Your task to perform on an android device: Is it going to rain today? Image 0: 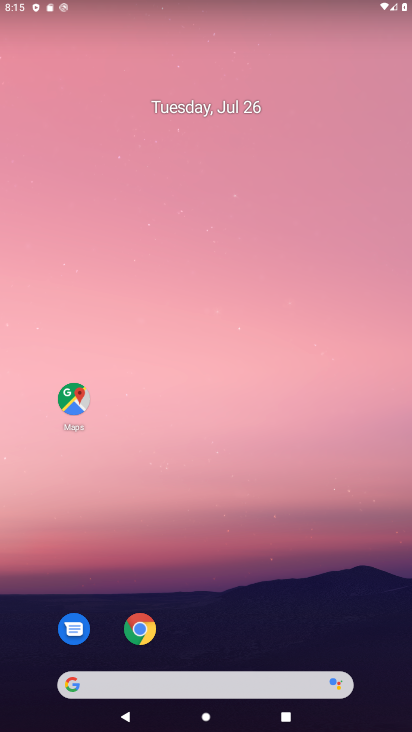
Step 0: click (200, 679)
Your task to perform on an android device: Is it going to rain today? Image 1: 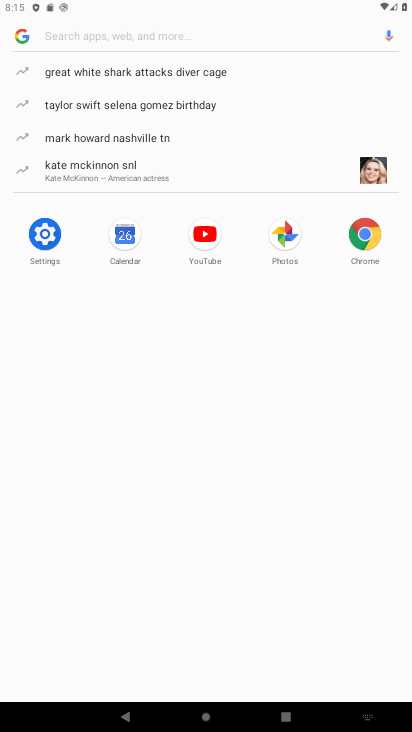
Step 1: type "weather"
Your task to perform on an android device: Is it going to rain today? Image 2: 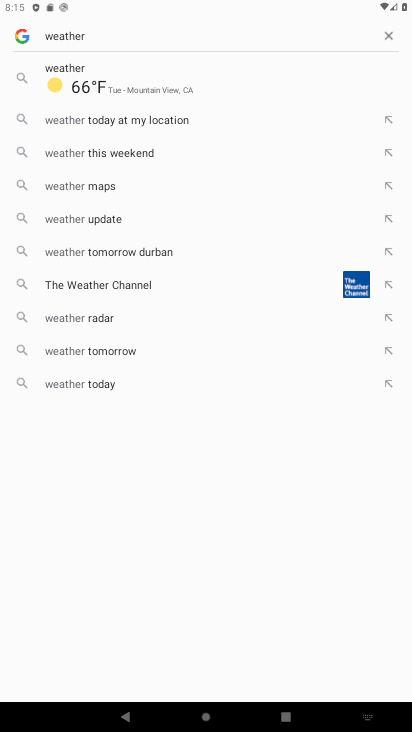
Step 2: click (90, 102)
Your task to perform on an android device: Is it going to rain today? Image 3: 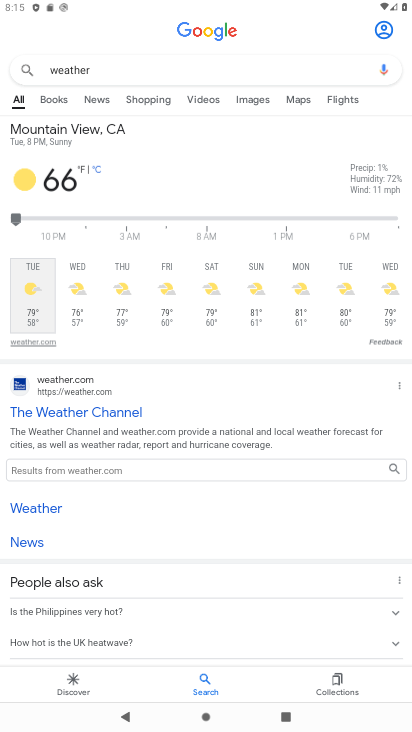
Step 3: click (36, 277)
Your task to perform on an android device: Is it going to rain today? Image 4: 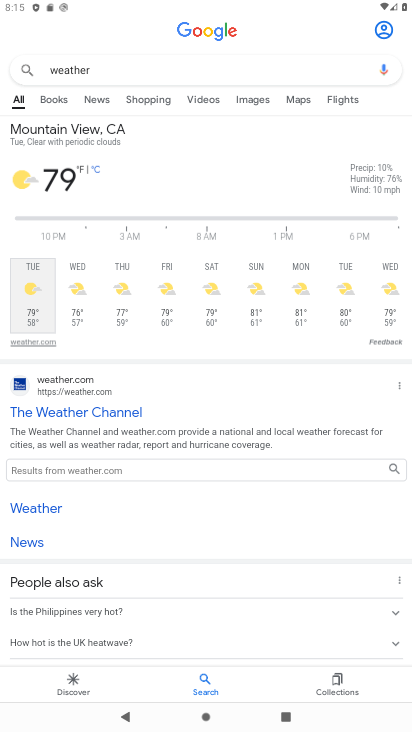
Step 4: click (36, 277)
Your task to perform on an android device: Is it going to rain today? Image 5: 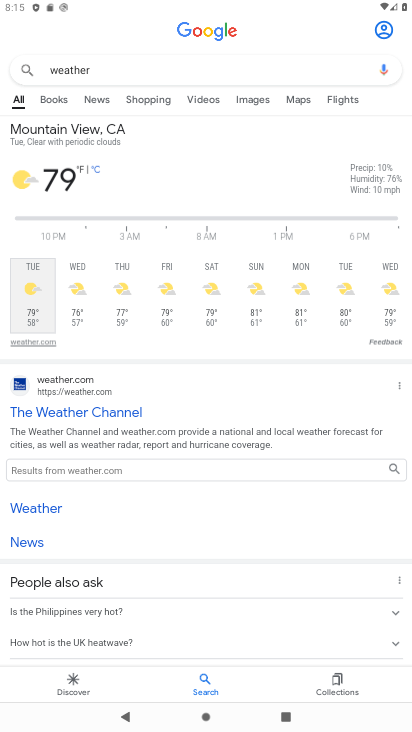
Step 5: task complete